Your task to perform on an android device: Go to eBay Image 0: 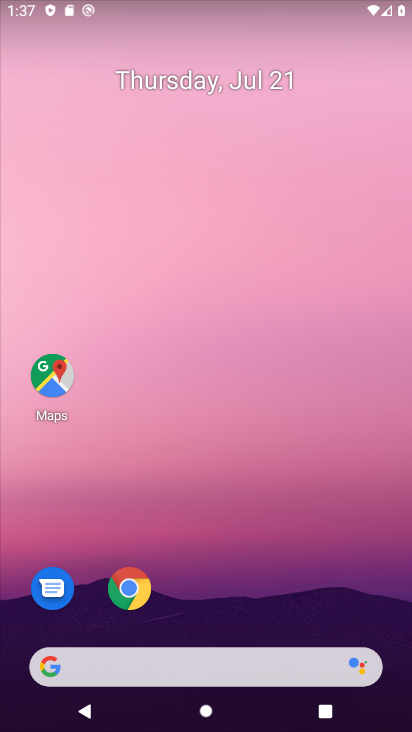
Step 0: click (259, 15)
Your task to perform on an android device: Go to eBay Image 1: 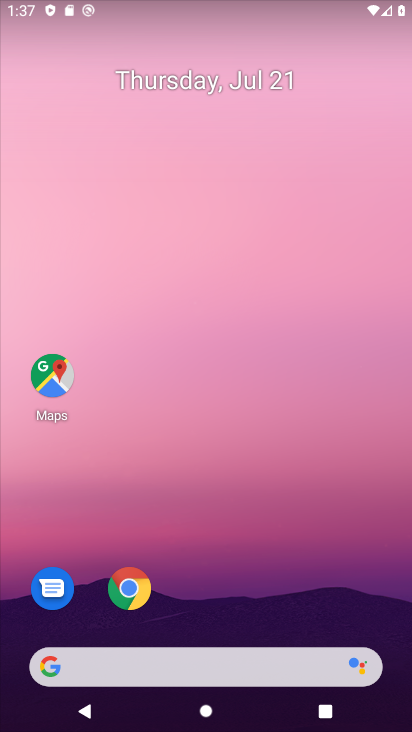
Step 1: drag from (313, 555) to (218, 15)
Your task to perform on an android device: Go to eBay Image 2: 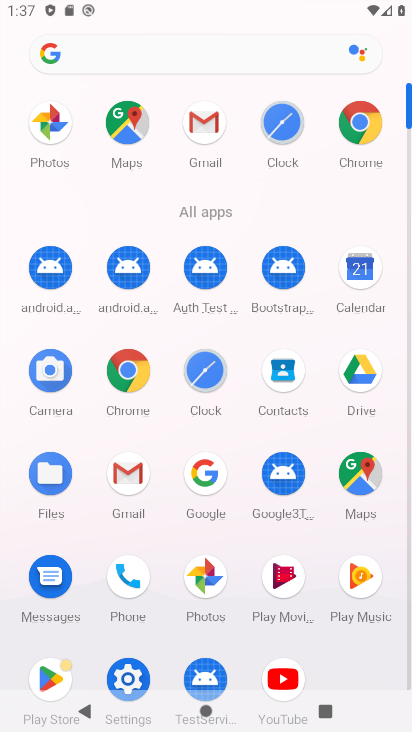
Step 2: click (358, 123)
Your task to perform on an android device: Go to eBay Image 3: 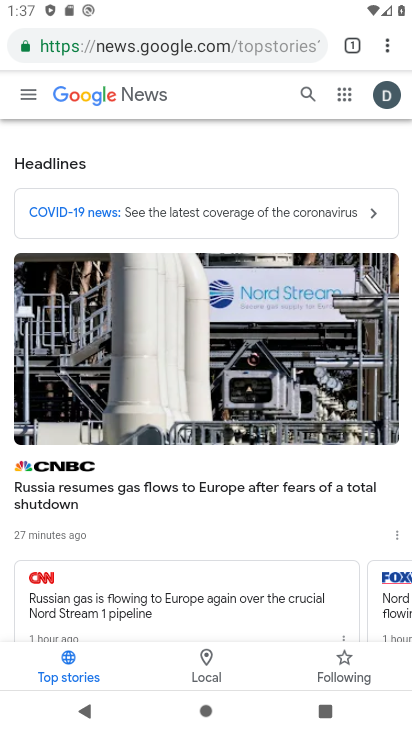
Step 3: click (168, 34)
Your task to perform on an android device: Go to eBay Image 4: 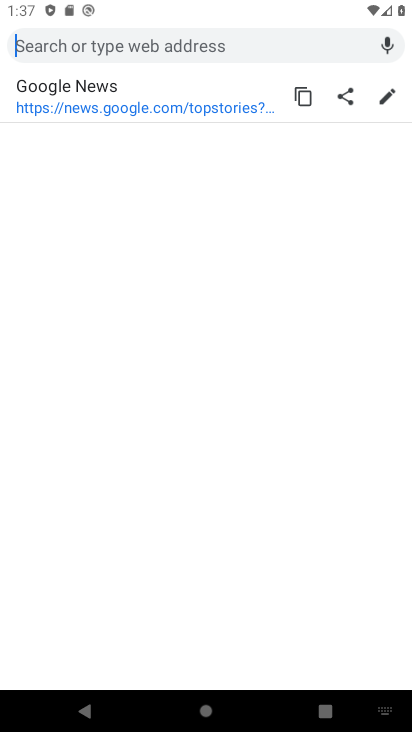
Step 4: type "ebay"
Your task to perform on an android device: Go to eBay Image 5: 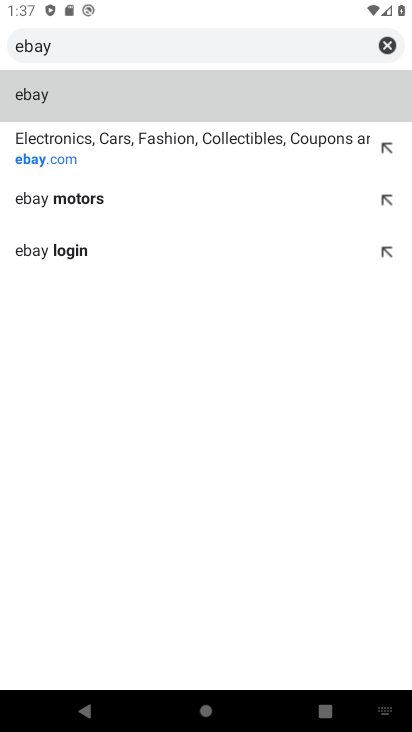
Step 5: click (55, 158)
Your task to perform on an android device: Go to eBay Image 6: 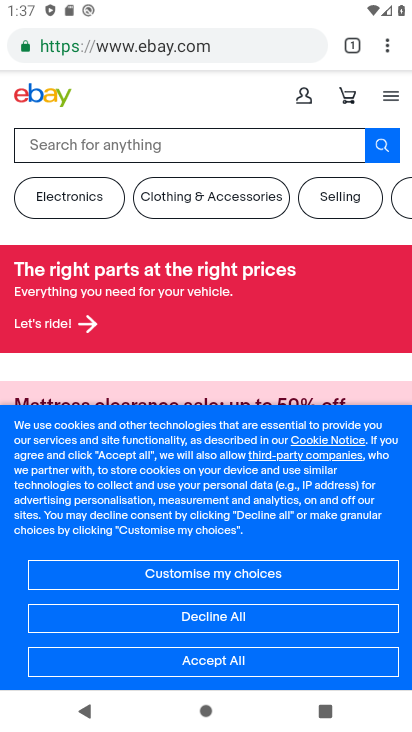
Step 6: task complete